Your task to perform on an android device: change the clock display to show seconds Image 0: 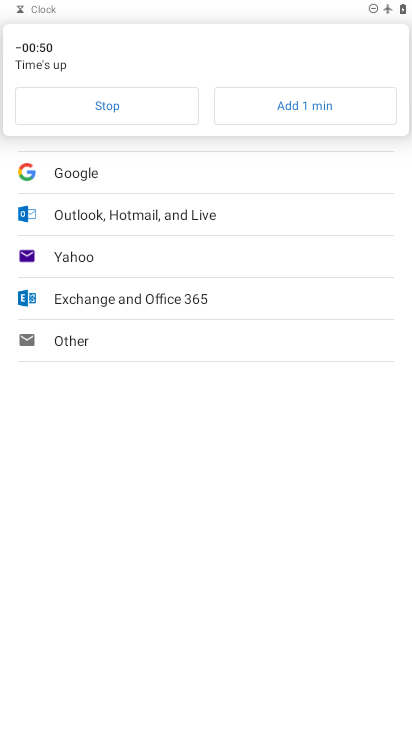
Step 0: click (82, 99)
Your task to perform on an android device: change the clock display to show seconds Image 1: 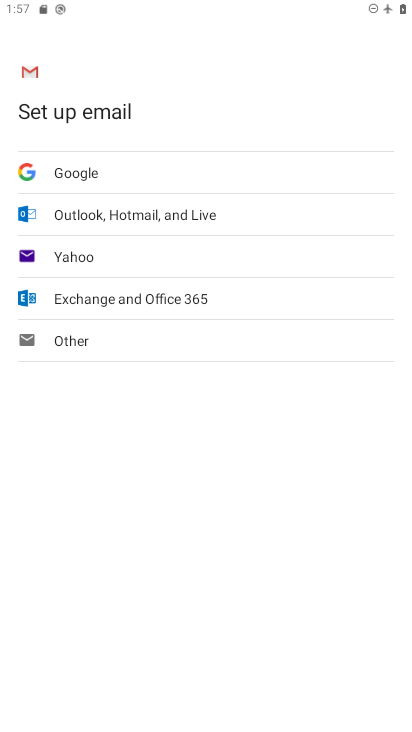
Step 1: press home button
Your task to perform on an android device: change the clock display to show seconds Image 2: 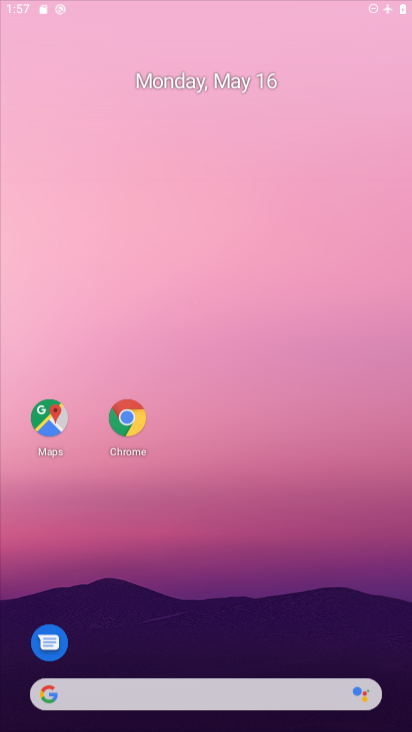
Step 2: drag from (148, 553) to (158, 238)
Your task to perform on an android device: change the clock display to show seconds Image 3: 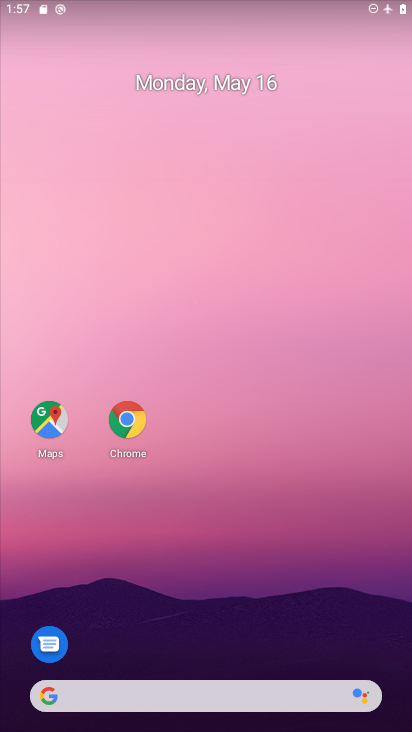
Step 3: drag from (212, 670) to (267, 414)
Your task to perform on an android device: change the clock display to show seconds Image 4: 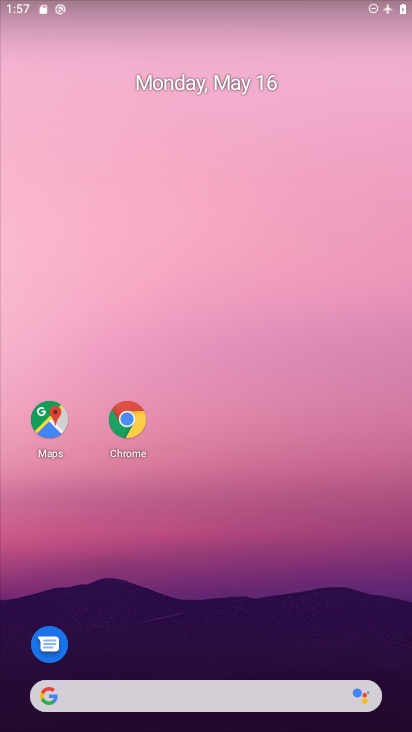
Step 4: drag from (217, 587) to (384, 8)
Your task to perform on an android device: change the clock display to show seconds Image 5: 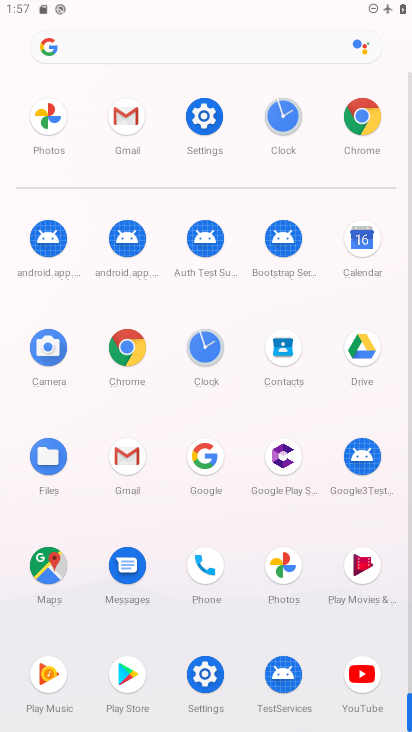
Step 5: click (195, 121)
Your task to perform on an android device: change the clock display to show seconds Image 6: 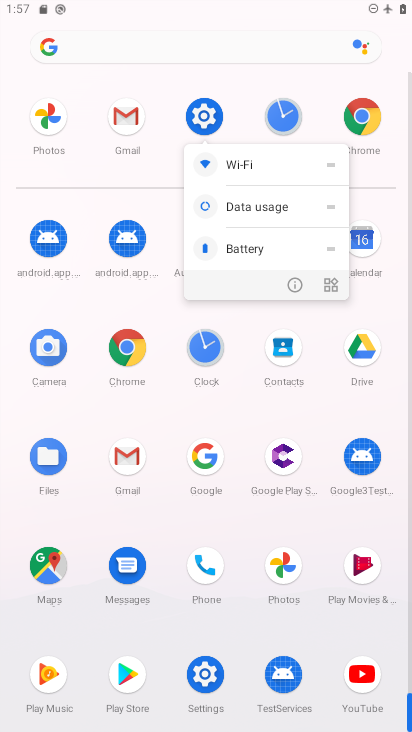
Step 6: click (210, 338)
Your task to perform on an android device: change the clock display to show seconds Image 7: 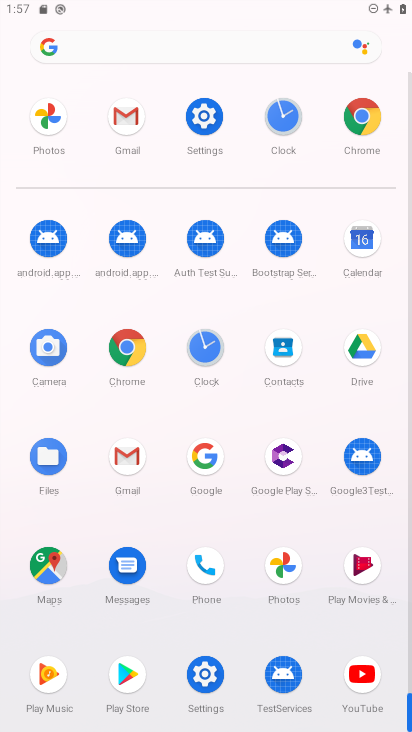
Step 7: click (210, 338)
Your task to perform on an android device: change the clock display to show seconds Image 8: 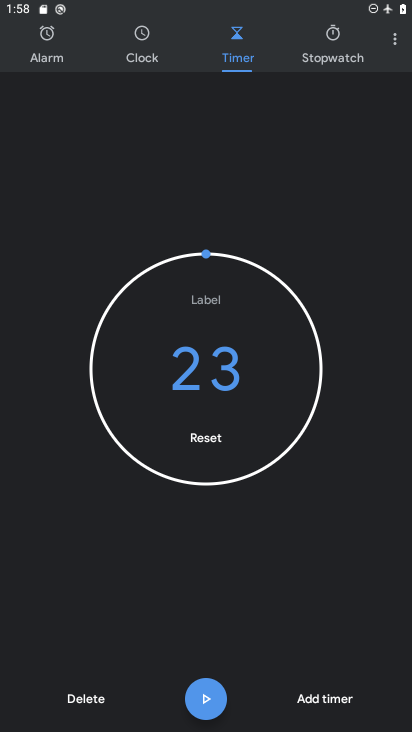
Step 8: click (386, 41)
Your task to perform on an android device: change the clock display to show seconds Image 9: 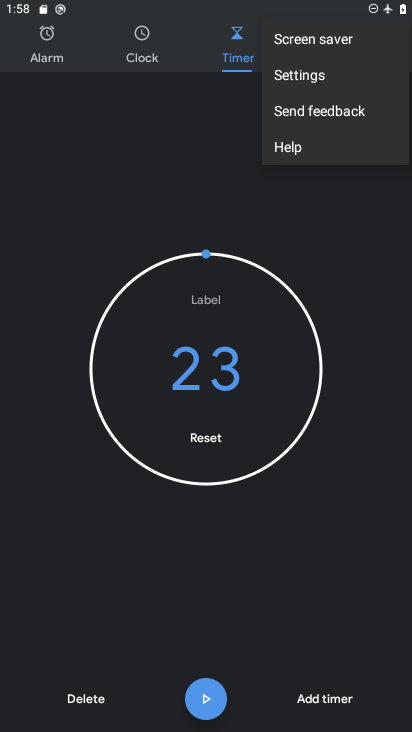
Step 9: click (336, 76)
Your task to perform on an android device: change the clock display to show seconds Image 10: 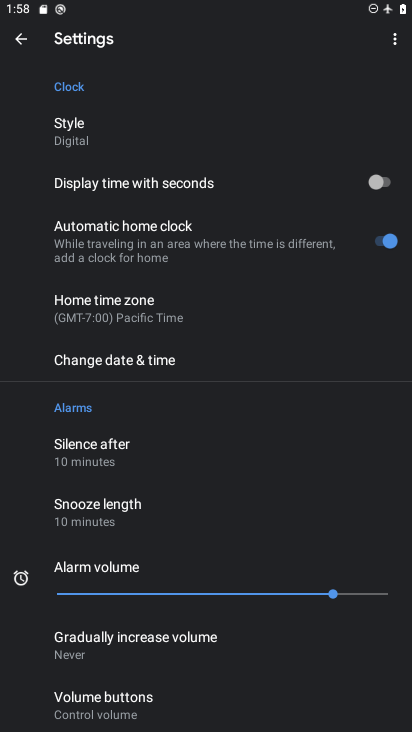
Step 10: click (242, 195)
Your task to perform on an android device: change the clock display to show seconds Image 11: 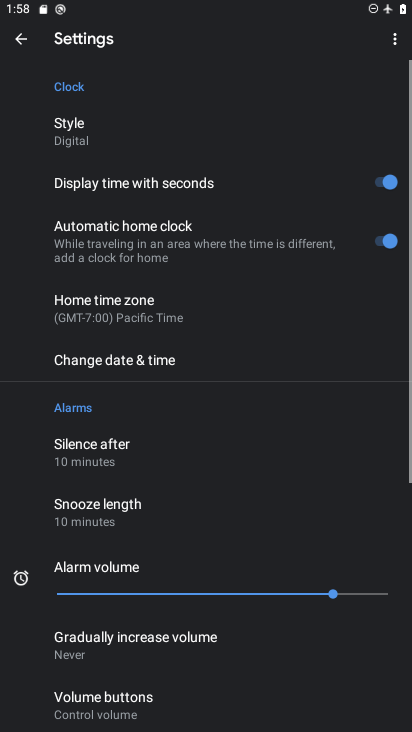
Step 11: task complete